Your task to perform on an android device: turn vacation reply on in the gmail app Image 0: 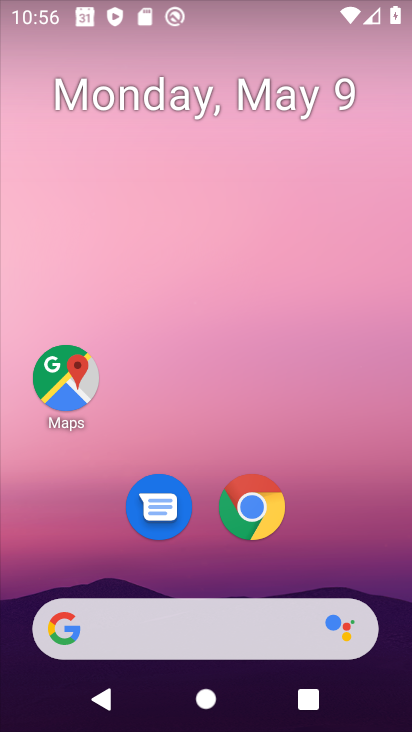
Step 0: drag from (314, 521) to (308, 100)
Your task to perform on an android device: turn vacation reply on in the gmail app Image 1: 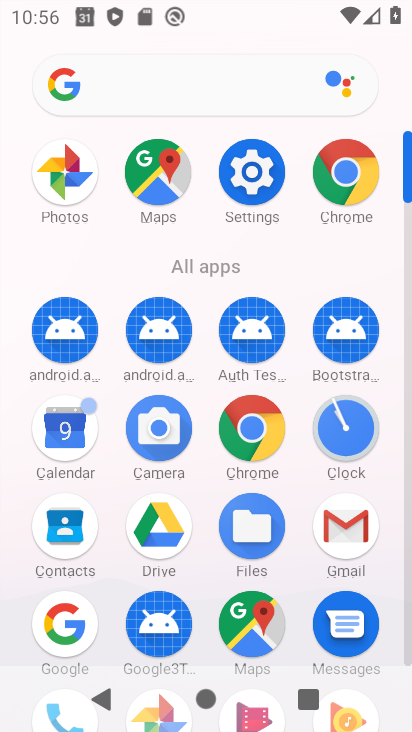
Step 1: click (355, 526)
Your task to perform on an android device: turn vacation reply on in the gmail app Image 2: 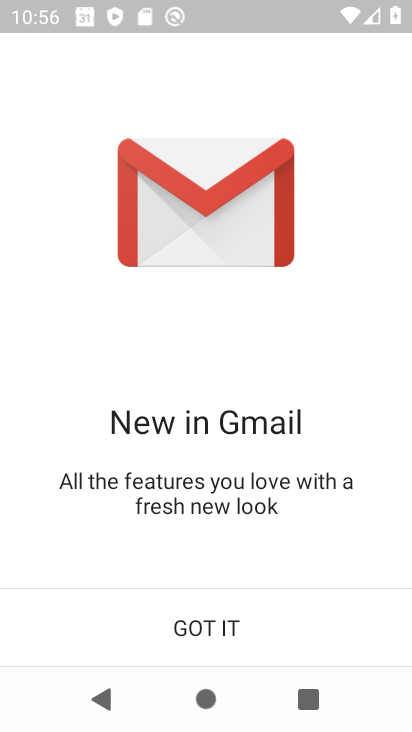
Step 2: click (204, 634)
Your task to perform on an android device: turn vacation reply on in the gmail app Image 3: 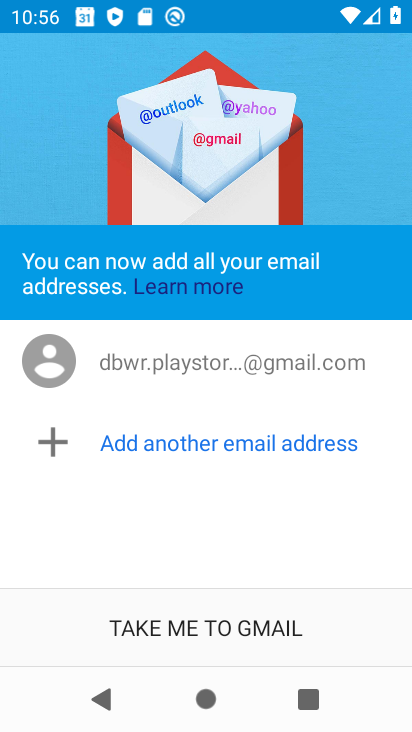
Step 3: click (227, 619)
Your task to perform on an android device: turn vacation reply on in the gmail app Image 4: 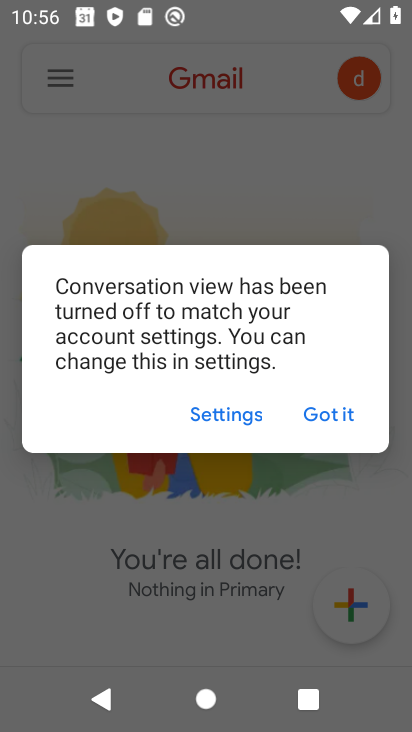
Step 4: click (313, 414)
Your task to perform on an android device: turn vacation reply on in the gmail app Image 5: 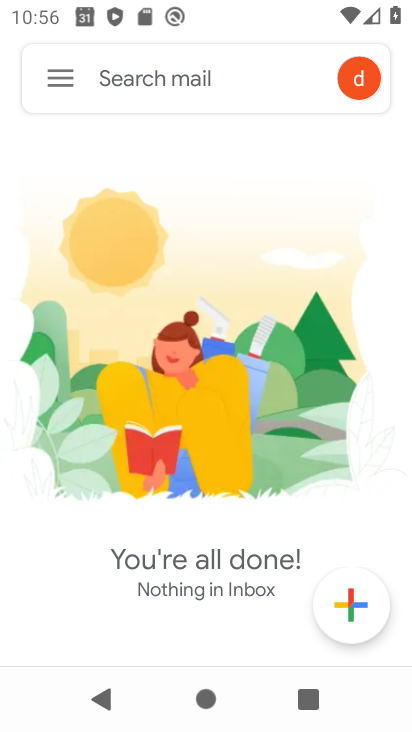
Step 5: click (68, 82)
Your task to perform on an android device: turn vacation reply on in the gmail app Image 6: 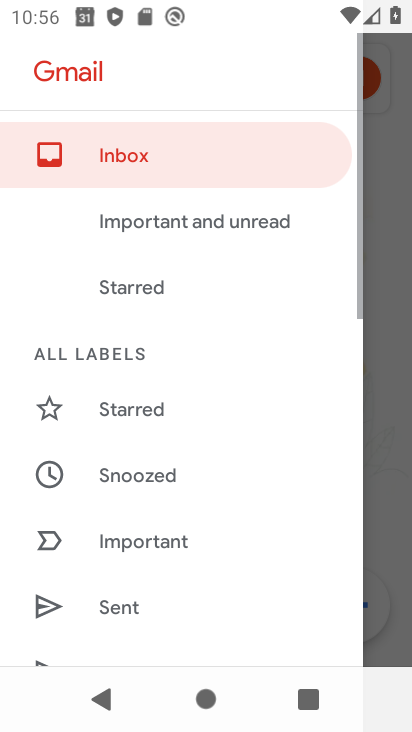
Step 6: drag from (192, 625) to (185, 191)
Your task to perform on an android device: turn vacation reply on in the gmail app Image 7: 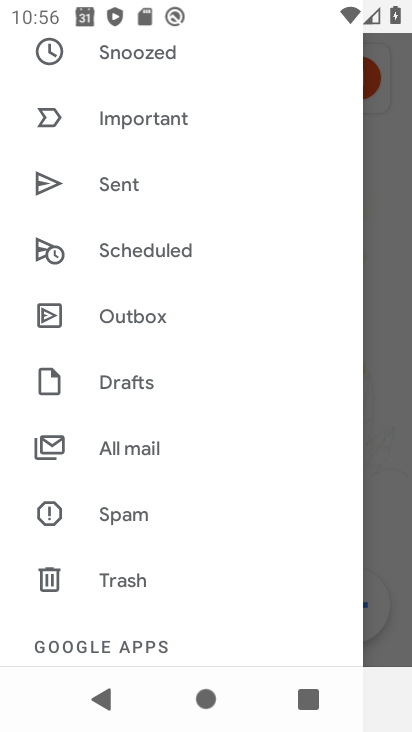
Step 7: drag from (191, 620) to (196, 256)
Your task to perform on an android device: turn vacation reply on in the gmail app Image 8: 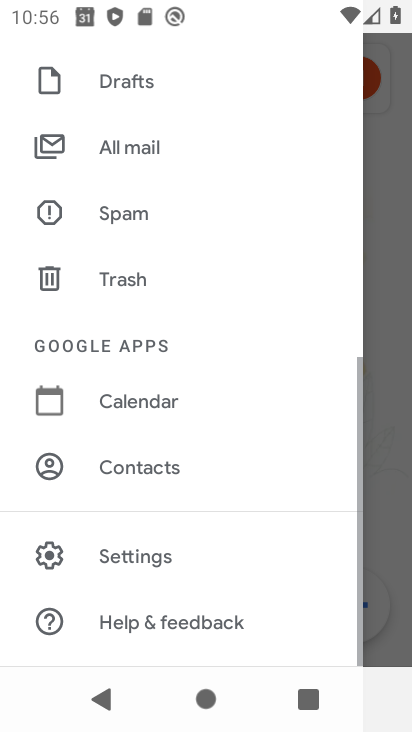
Step 8: click (152, 556)
Your task to perform on an android device: turn vacation reply on in the gmail app Image 9: 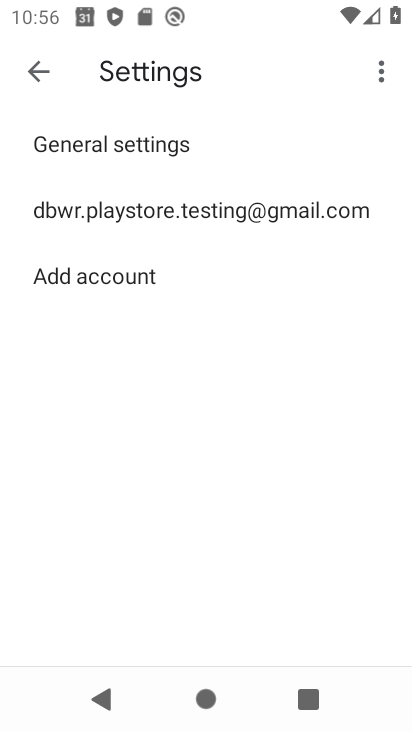
Step 9: click (163, 215)
Your task to perform on an android device: turn vacation reply on in the gmail app Image 10: 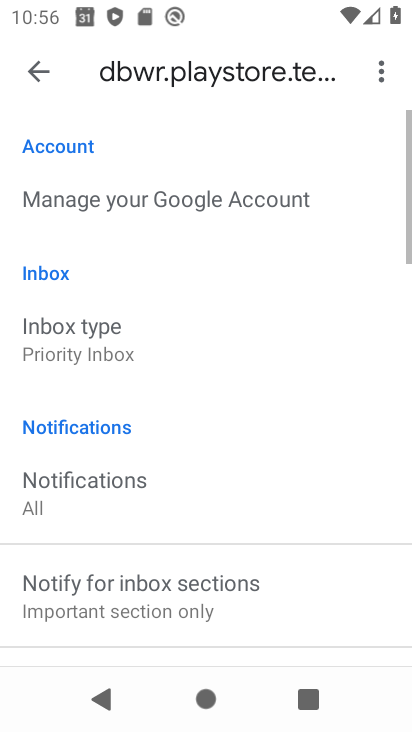
Step 10: drag from (231, 609) to (228, 216)
Your task to perform on an android device: turn vacation reply on in the gmail app Image 11: 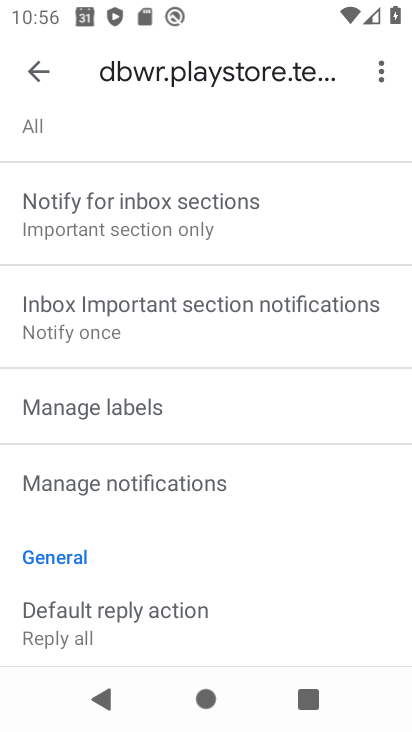
Step 11: drag from (152, 623) to (163, 278)
Your task to perform on an android device: turn vacation reply on in the gmail app Image 12: 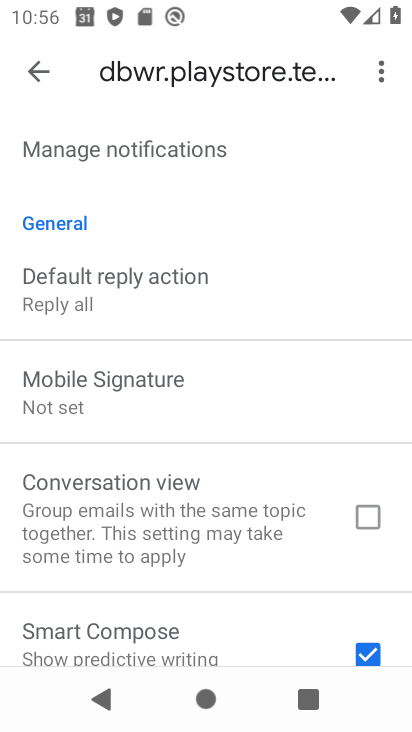
Step 12: drag from (187, 606) to (188, 345)
Your task to perform on an android device: turn vacation reply on in the gmail app Image 13: 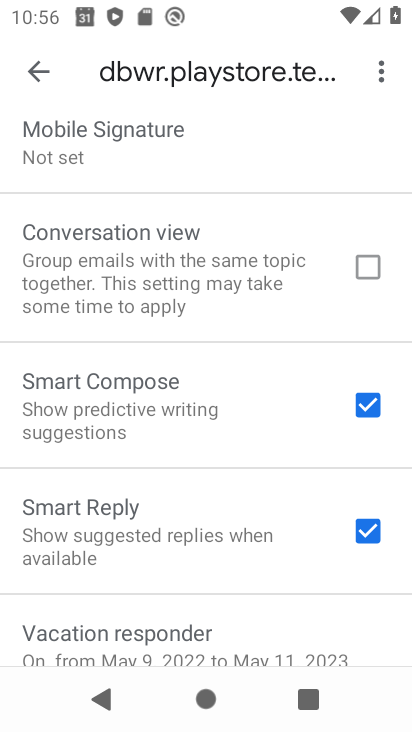
Step 13: click (235, 641)
Your task to perform on an android device: turn vacation reply on in the gmail app Image 14: 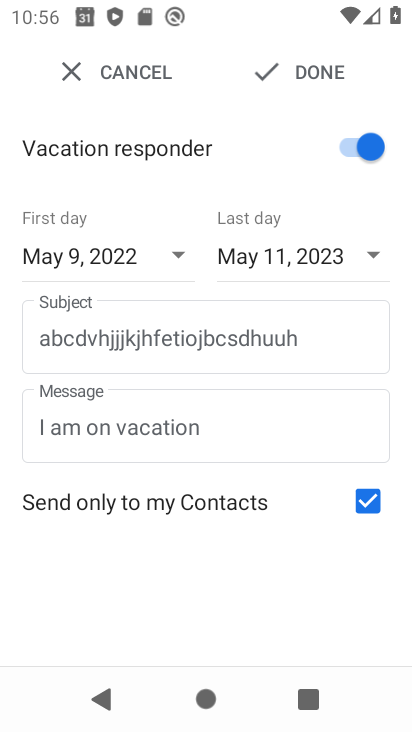
Step 14: click (310, 68)
Your task to perform on an android device: turn vacation reply on in the gmail app Image 15: 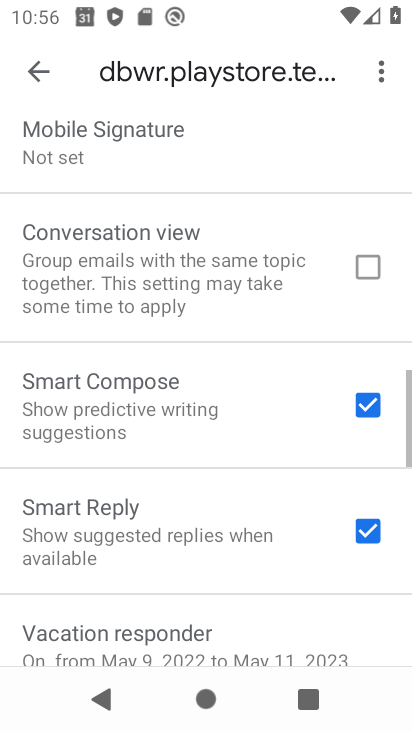
Step 15: task complete